Your task to perform on an android device: Open Google Chrome and click the shortcut for Amazon.com Image 0: 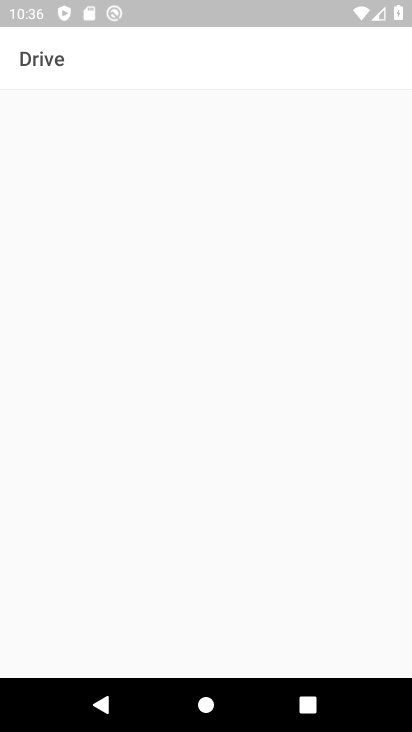
Step 0: press home button
Your task to perform on an android device: Open Google Chrome and click the shortcut for Amazon.com Image 1: 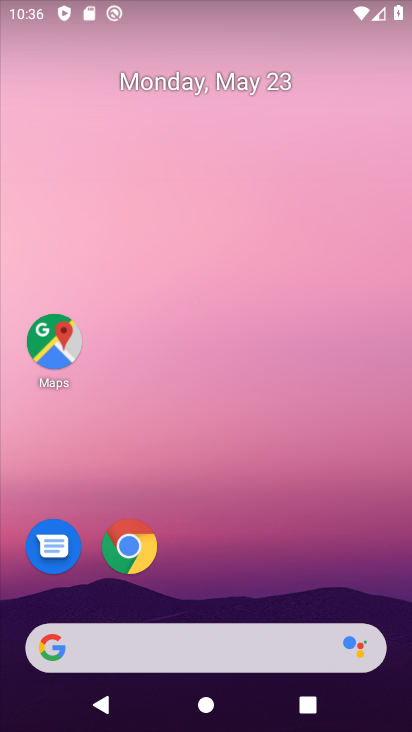
Step 1: click (134, 562)
Your task to perform on an android device: Open Google Chrome and click the shortcut for Amazon.com Image 2: 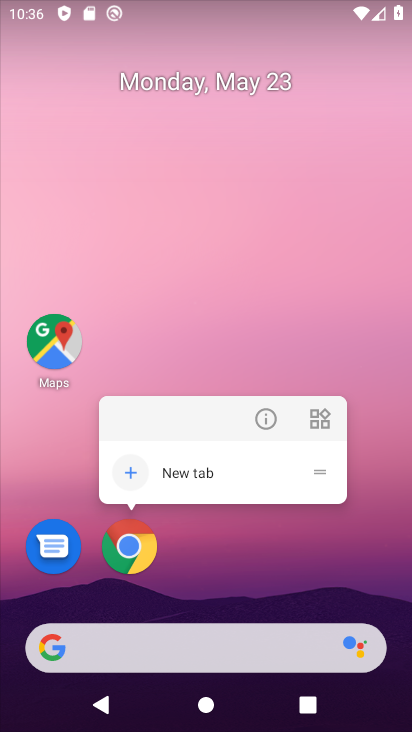
Step 2: click (135, 555)
Your task to perform on an android device: Open Google Chrome and click the shortcut for Amazon.com Image 3: 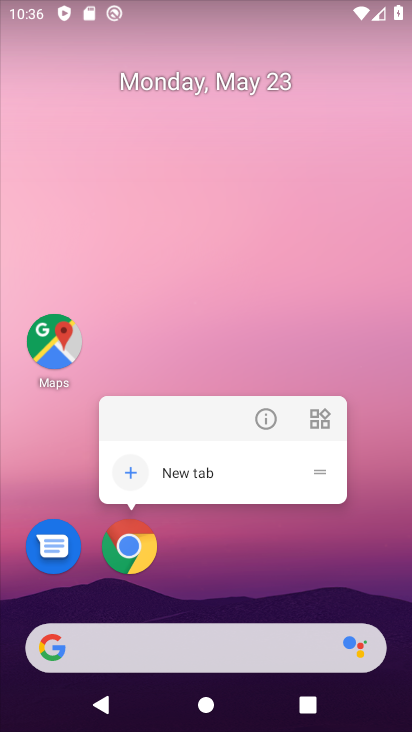
Step 3: click (135, 562)
Your task to perform on an android device: Open Google Chrome and click the shortcut for Amazon.com Image 4: 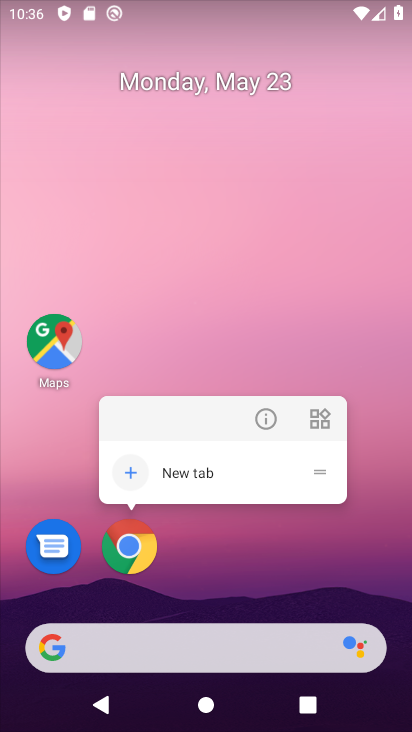
Step 4: click (137, 552)
Your task to perform on an android device: Open Google Chrome and click the shortcut for Amazon.com Image 5: 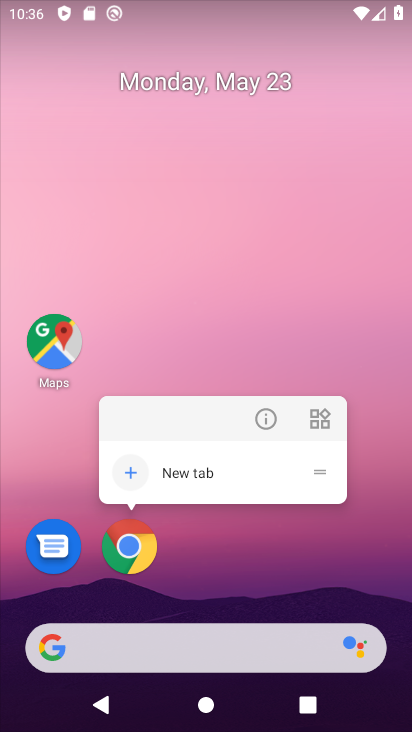
Step 5: click (120, 562)
Your task to perform on an android device: Open Google Chrome and click the shortcut for Amazon.com Image 6: 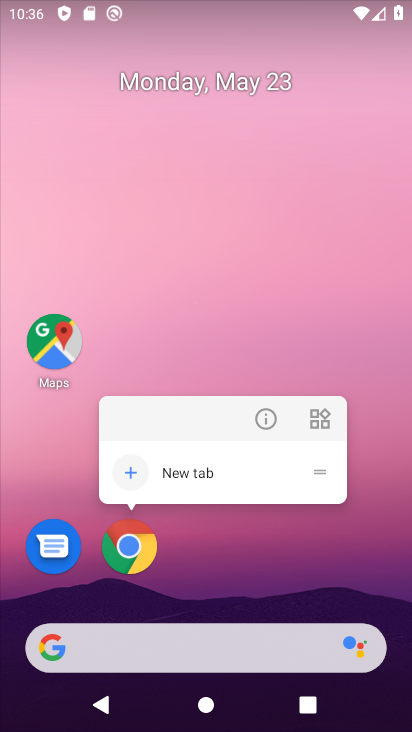
Step 6: click (120, 540)
Your task to perform on an android device: Open Google Chrome and click the shortcut for Amazon.com Image 7: 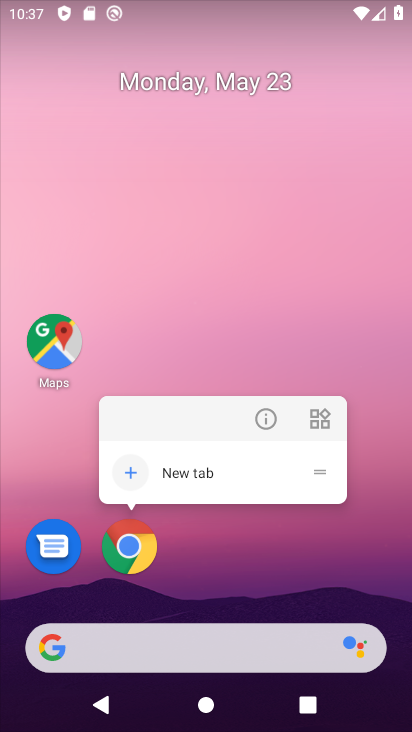
Step 7: click (142, 539)
Your task to perform on an android device: Open Google Chrome and click the shortcut for Amazon.com Image 8: 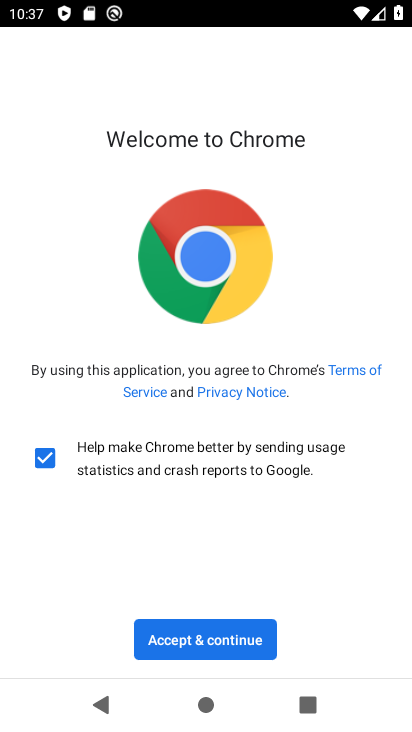
Step 8: click (248, 646)
Your task to perform on an android device: Open Google Chrome and click the shortcut for Amazon.com Image 9: 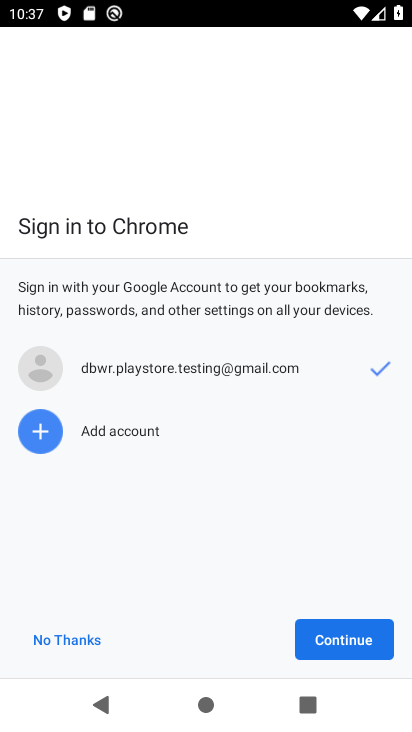
Step 9: click (374, 647)
Your task to perform on an android device: Open Google Chrome and click the shortcut for Amazon.com Image 10: 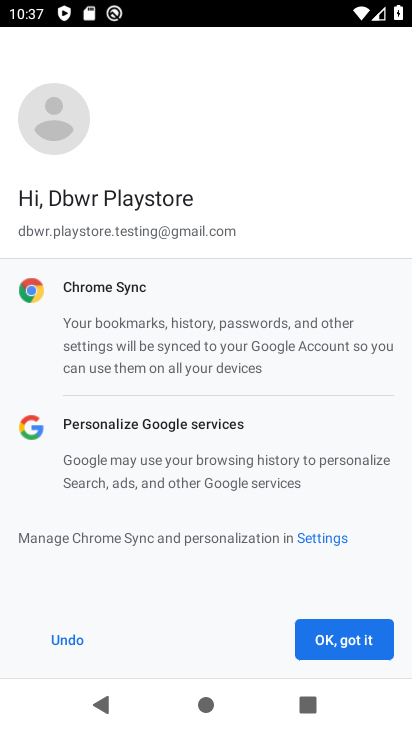
Step 10: click (377, 643)
Your task to perform on an android device: Open Google Chrome and click the shortcut for Amazon.com Image 11: 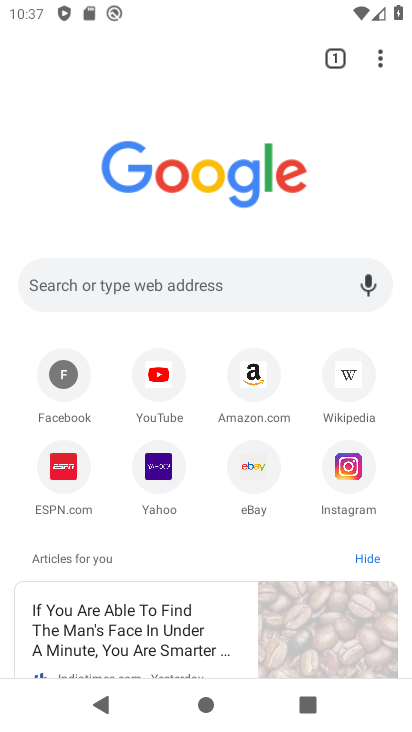
Step 11: click (255, 372)
Your task to perform on an android device: Open Google Chrome and click the shortcut for Amazon.com Image 12: 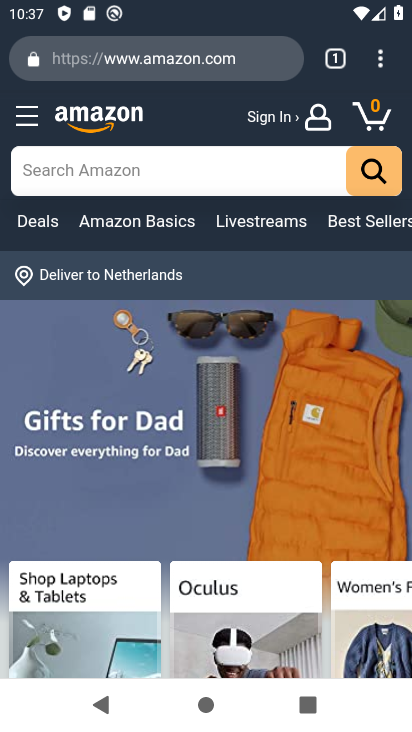
Step 12: task complete